Your task to perform on an android device: Check the weather Image 0: 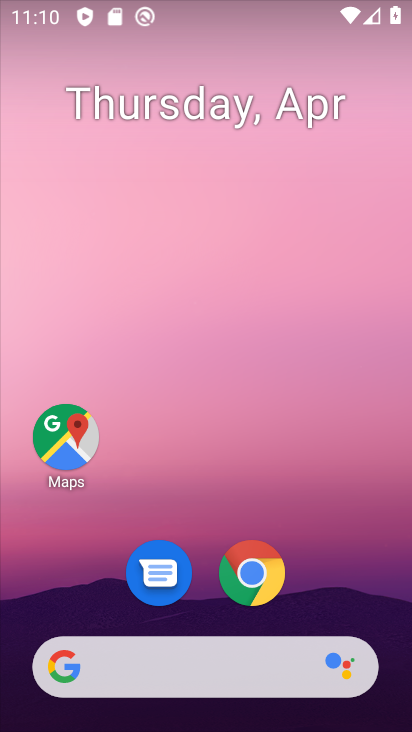
Step 0: drag from (328, 508) to (294, 26)
Your task to perform on an android device: Check the weather Image 1: 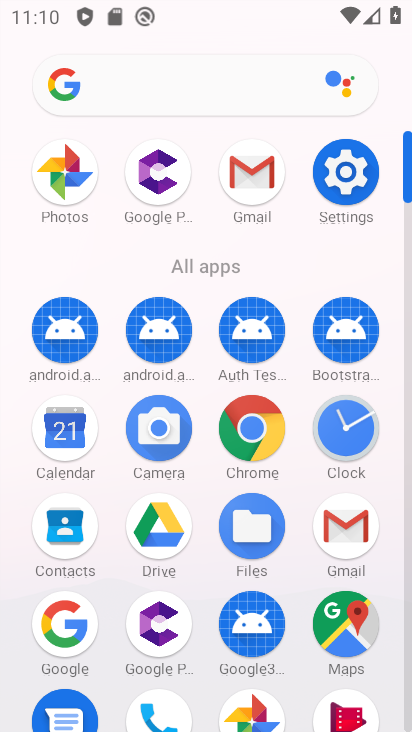
Step 1: click (73, 618)
Your task to perform on an android device: Check the weather Image 2: 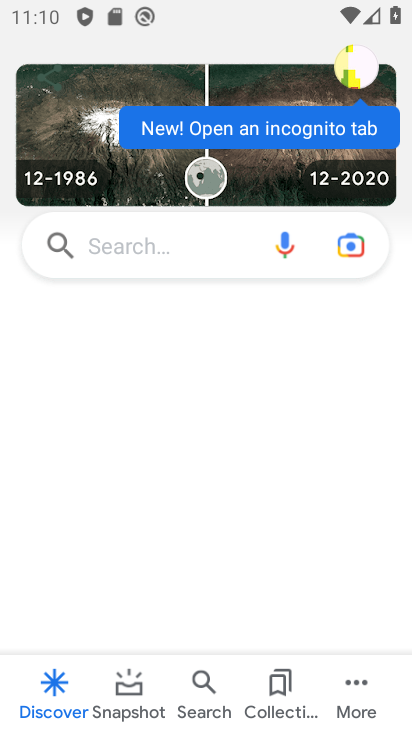
Step 2: click (168, 253)
Your task to perform on an android device: Check the weather Image 3: 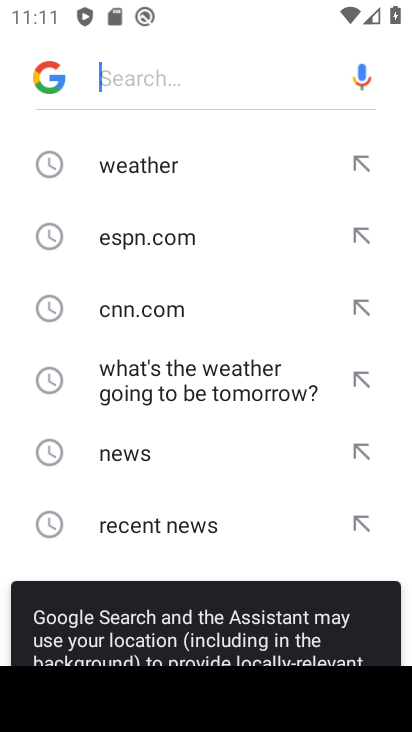
Step 3: click (133, 150)
Your task to perform on an android device: Check the weather Image 4: 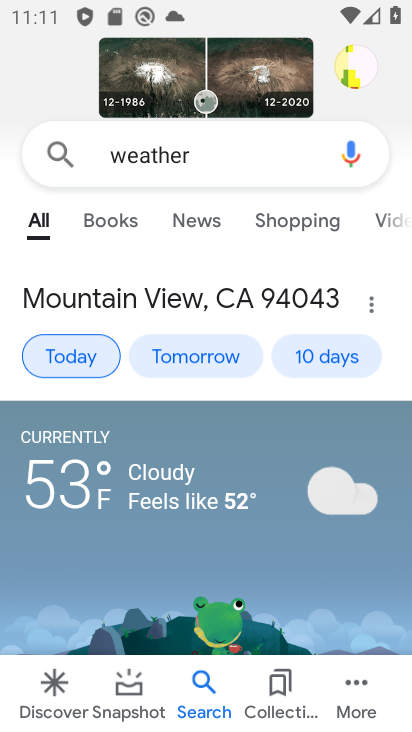
Step 4: task complete